Your task to perform on an android device: change the clock display to digital Image 0: 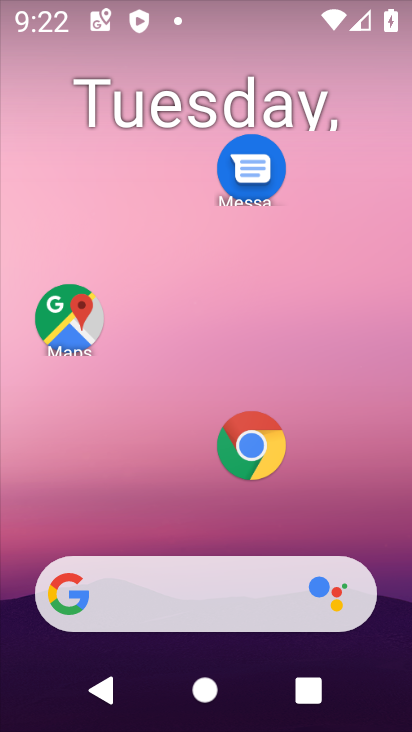
Step 0: drag from (221, 380) to (295, 1)
Your task to perform on an android device: change the clock display to digital Image 1: 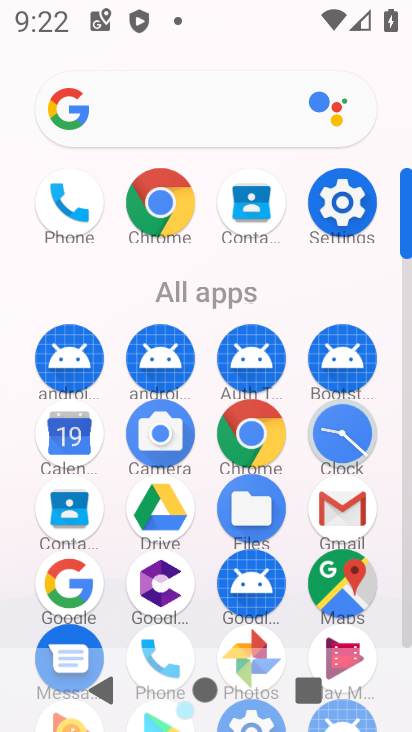
Step 1: click (354, 443)
Your task to perform on an android device: change the clock display to digital Image 2: 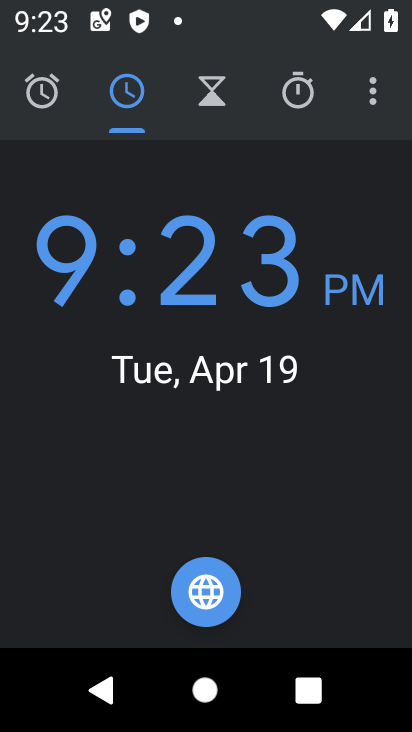
Step 2: click (369, 92)
Your task to perform on an android device: change the clock display to digital Image 3: 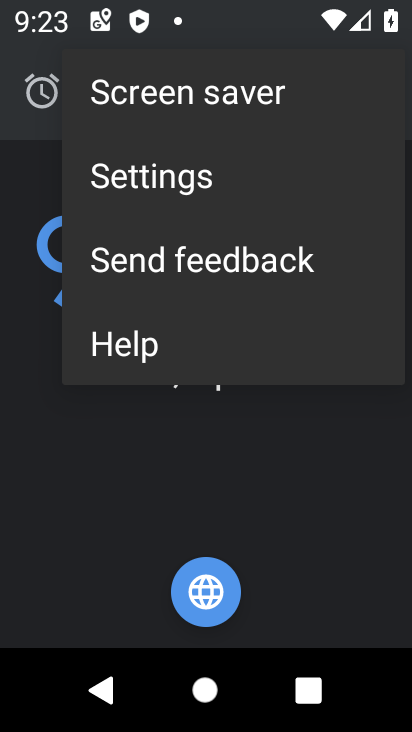
Step 3: click (192, 181)
Your task to perform on an android device: change the clock display to digital Image 4: 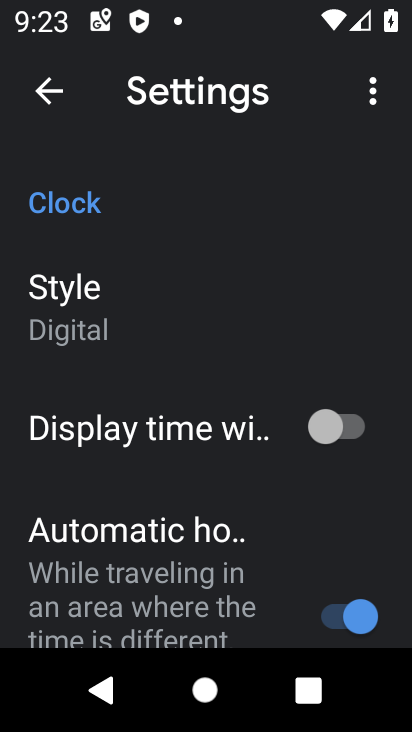
Step 4: task complete